Your task to perform on an android device: What's the weather today? Image 0: 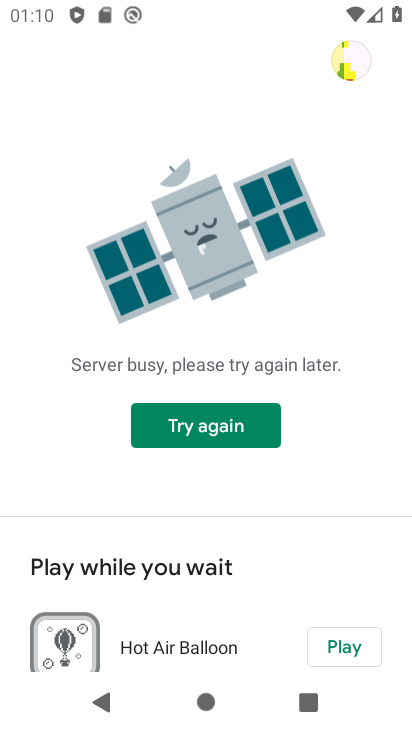
Step 0: click (409, 341)
Your task to perform on an android device: What's the weather today? Image 1: 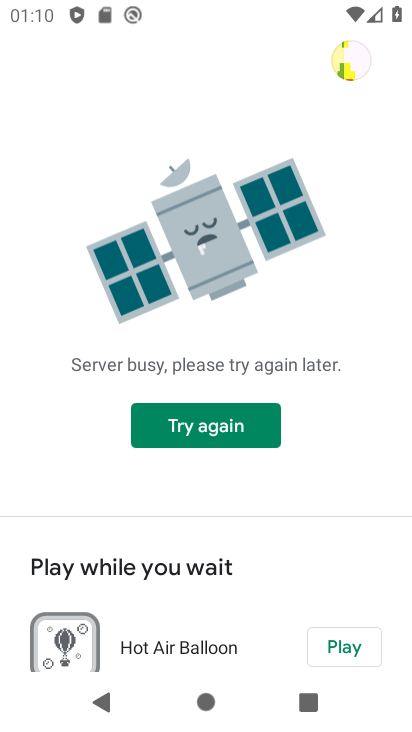
Step 1: drag from (201, 615) to (241, 370)
Your task to perform on an android device: What's the weather today? Image 2: 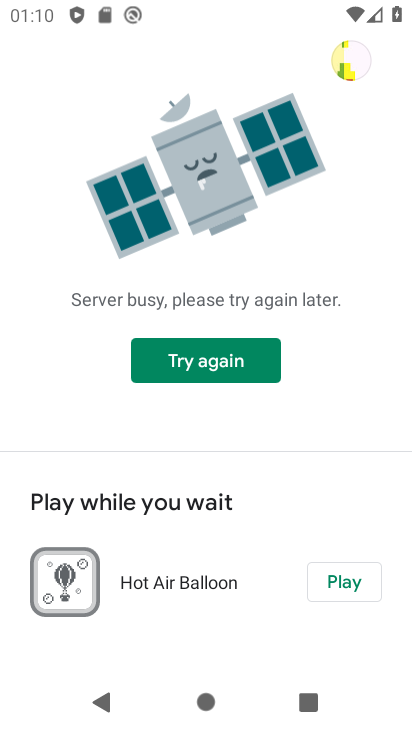
Step 2: drag from (224, 581) to (260, 211)
Your task to perform on an android device: What's the weather today? Image 3: 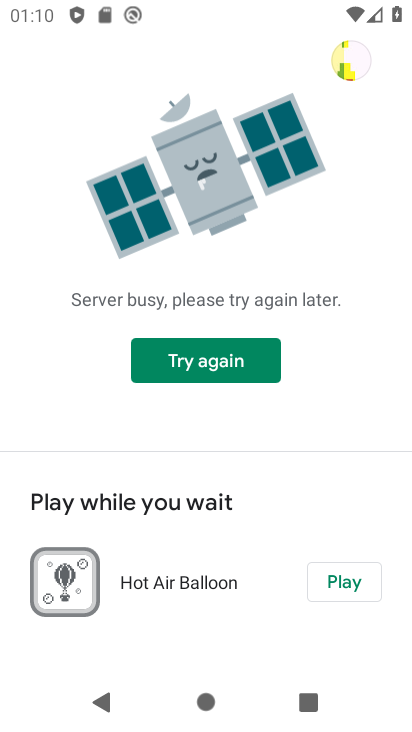
Step 3: click (228, 388)
Your task to perform on an android device: What's the weather today? Image 4: 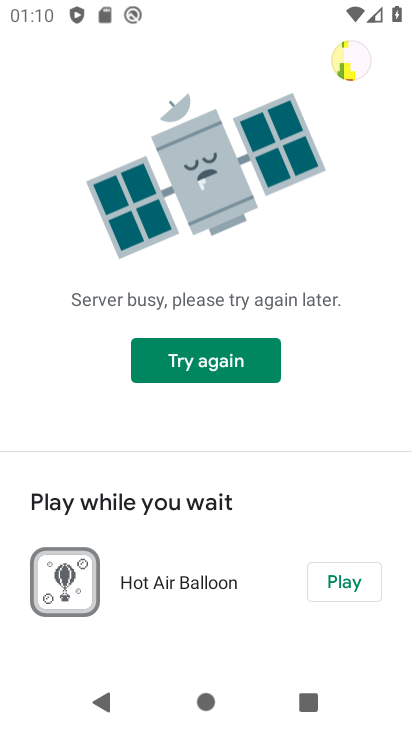
Step 4: drag from (258, 547) to (293, 376)
Your task to perform on an android device: What's the weather today? Image 5: 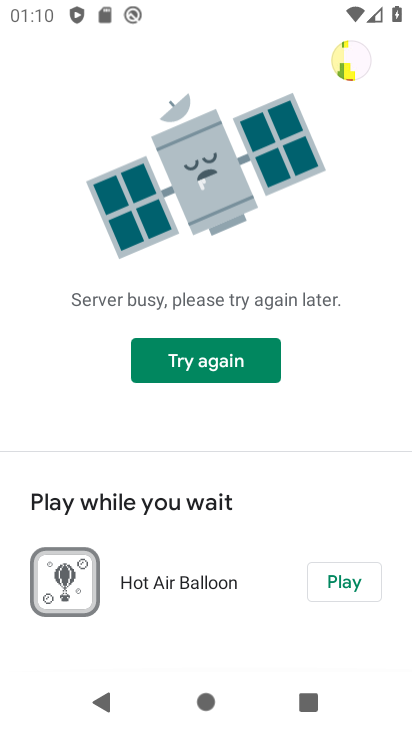
Step 5: press home button
Your task to perform on an android device: What's the weather today? Image 6: 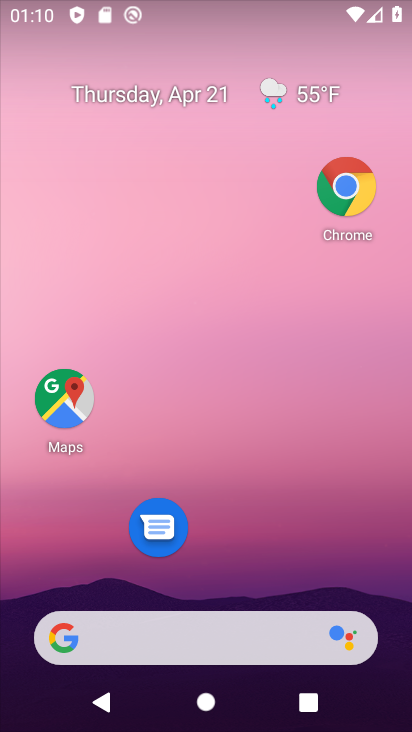
Step 6: drag from (241, 538) to (252, 161)
Your task to perform on an android device: What's the weather today? Image 7: 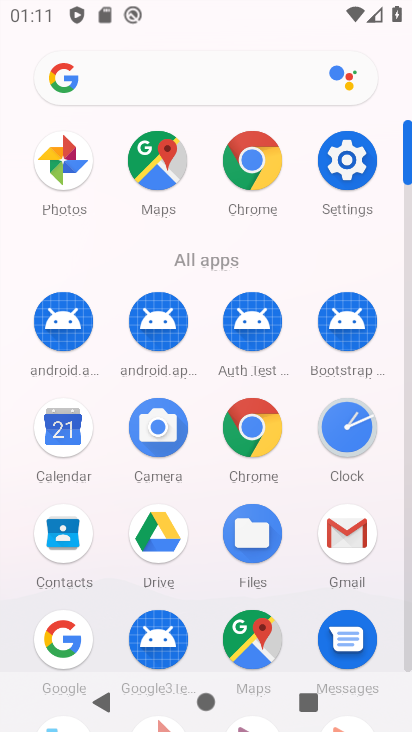
Step 7: click (245, 421)
Your task to perform on an android device: What's the weather today? Image 8: 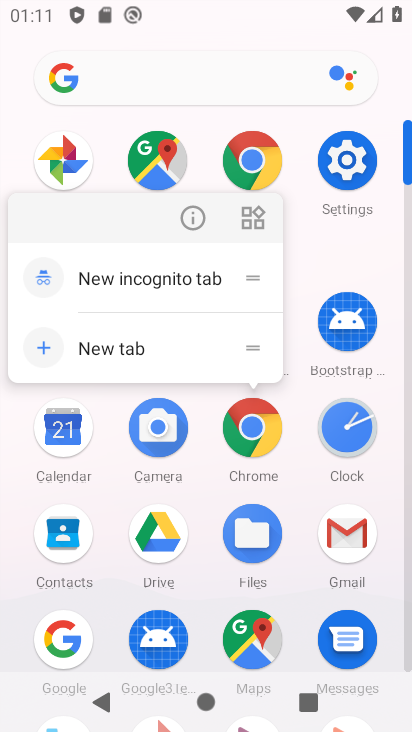
Step 8: click (190, 217)
Your task to perform on an android device: What's the weather today? Image 9: 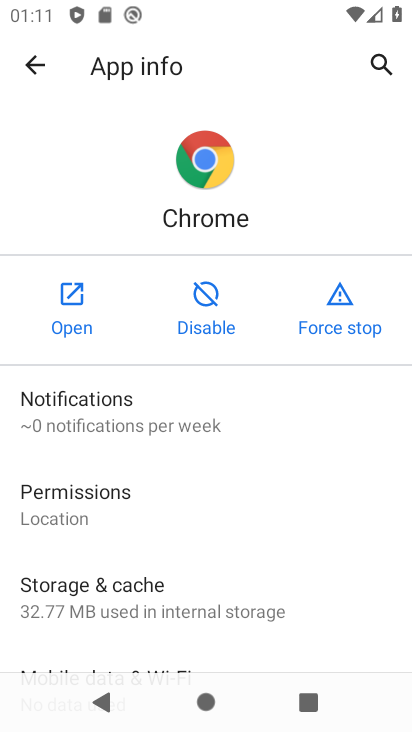
Step 9: click (71, 311)
Your task to perform on an android device: What's the weather today? Image 10: 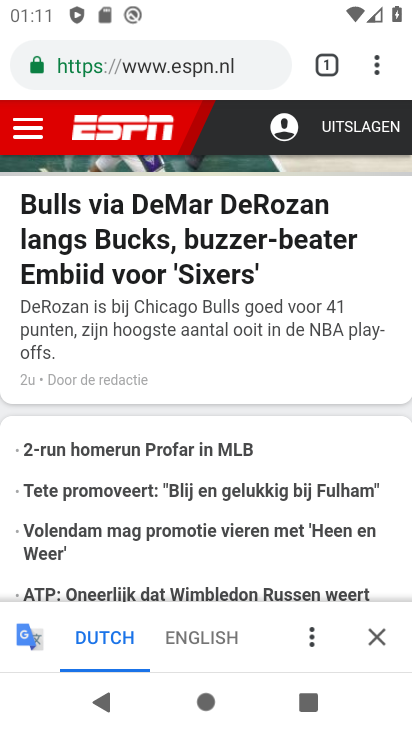
Step 10: drag from (247, 562) to (241, 224)
Your task to perform on an android device: What's the weather today? Image 11: 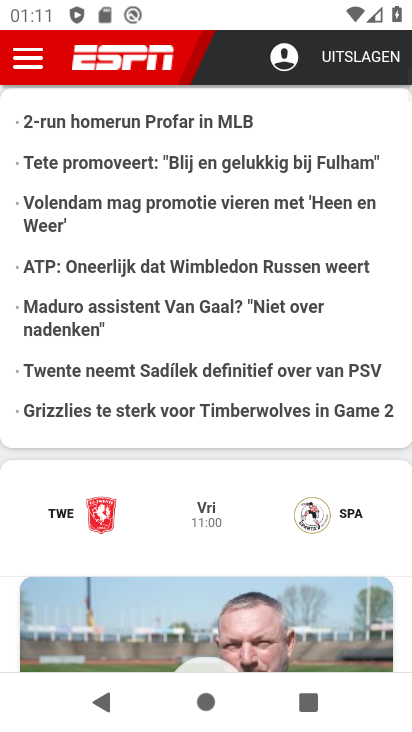
Step 11: drag from (202, 86) to (310, 512)
Your task to perform on an android device: What's the weather today? Image 12: 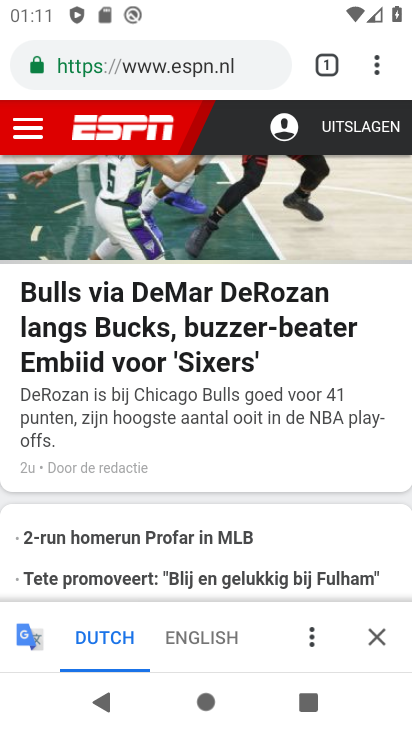
Step 12: click (178, 62)
Your task to perform on an android device: What's the weather today? Image 13: 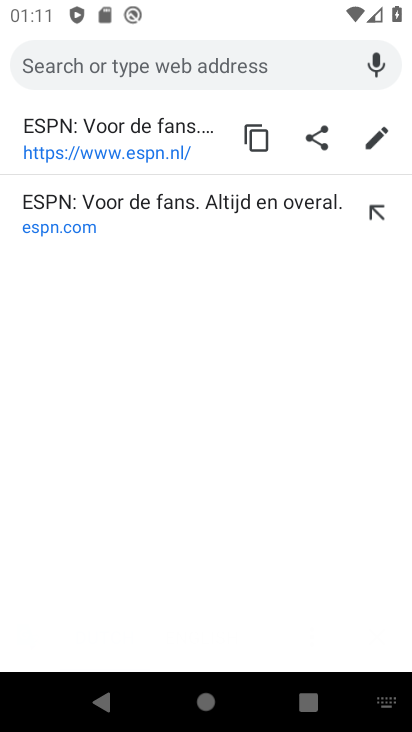
Step 13: type "weather today"
Your task to perform on an android device: What's the weather today? Image 14: 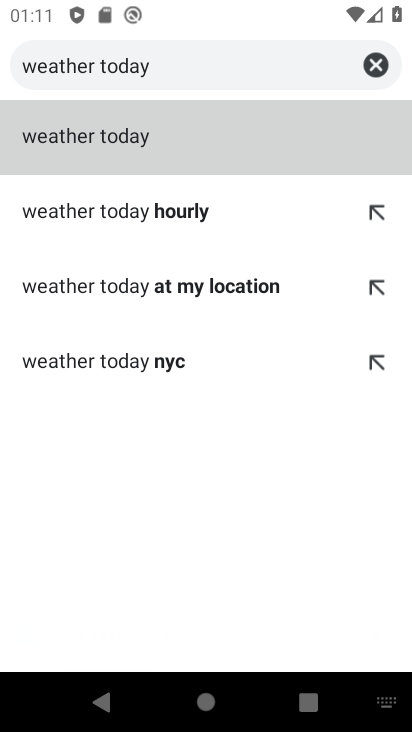
Step 14: click (127, 142)
Your task to perform on an android device: What's the weather today? Image 15: 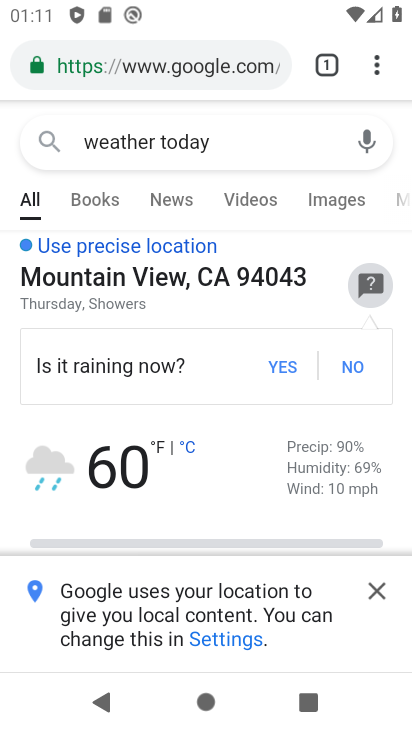
Step 15: task complete